Your task to perform on an android device: Open display settings Image 0: 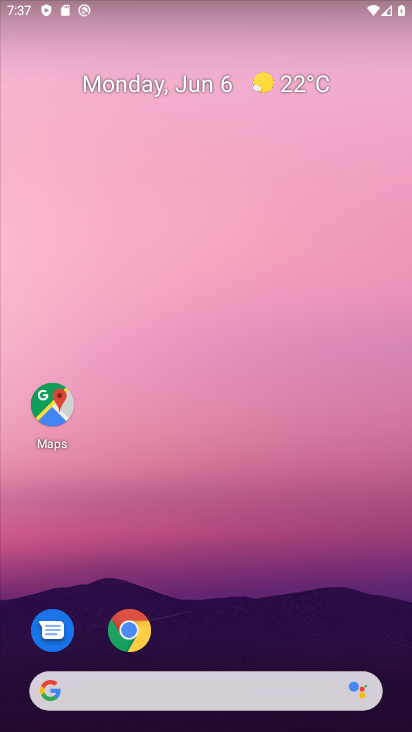
Step 0: drag from (276, 13) to (166, 371)
Your task to perform on an android device: Open display settings Image 1: 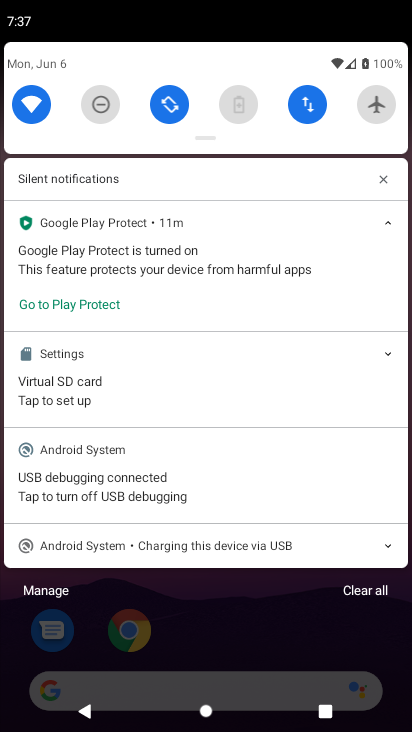
Step 1: task complete